Your task to perform on an android device: turn notification dots on Image 0: 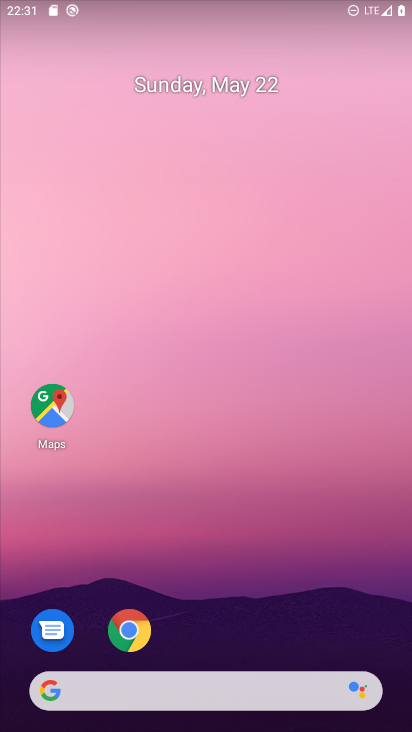
Step 0: press home button
Your task to perform on an android device: turn notification dots on Image 1: 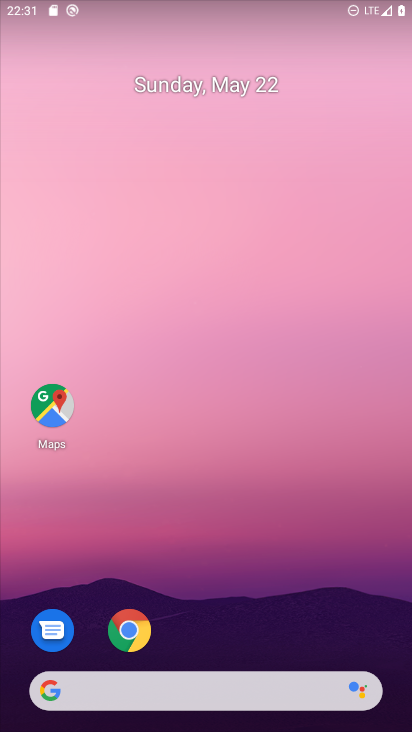
Step 1: drag from (147, 697) to (211, 120)
Your task to perform on an android device: turn notification dots on Image 2: 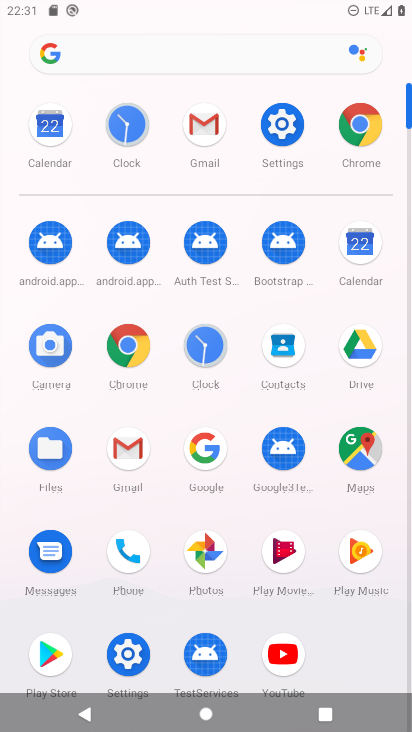
Step 2: click (280, 131)
Your task to perform on an android device: turn notification dots on Image 3: 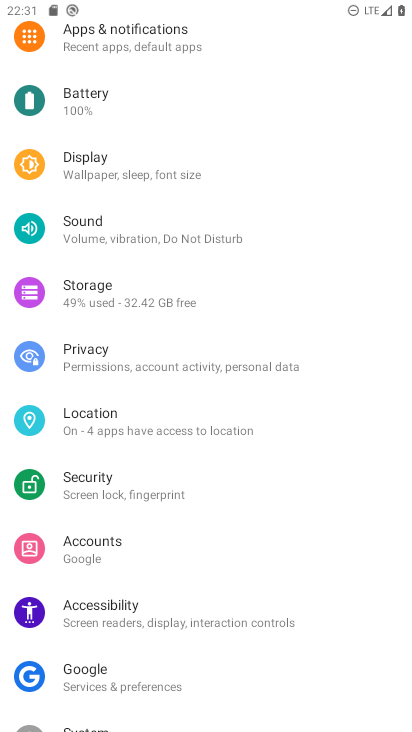
Step 3: click (154, 30)
Your task to perform on an android device: turn notification dots on Image 4: 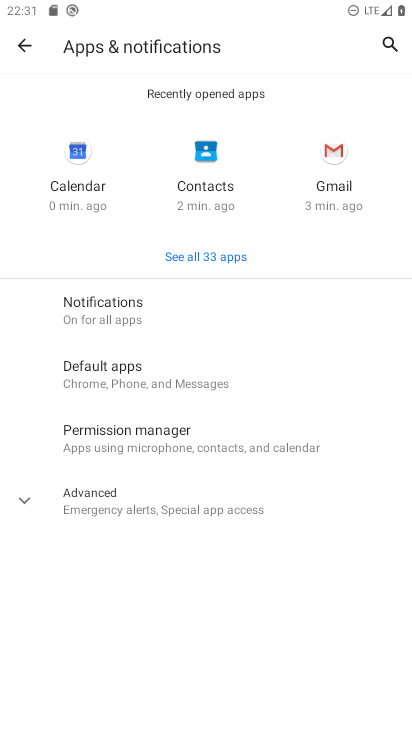
Step 4: click (131, 306)
Your task to perform on an android device: turn notification dots on Image 5: 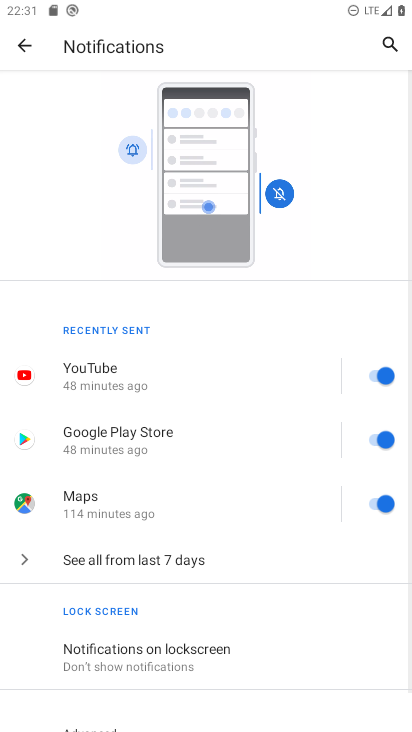
Step 5: drag from (226, 611) to (311, 143)
Your task to perform on an android device: turn notification dots on Image 6: 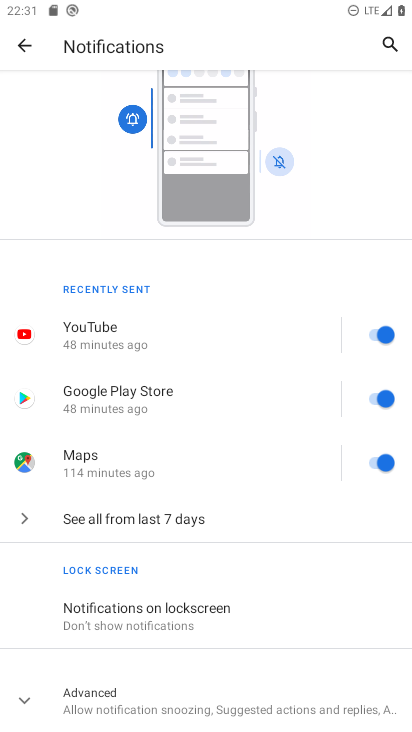
Step 6: click (172, 692)
Your task to perform on an android device: turn notification dots on Image 7: 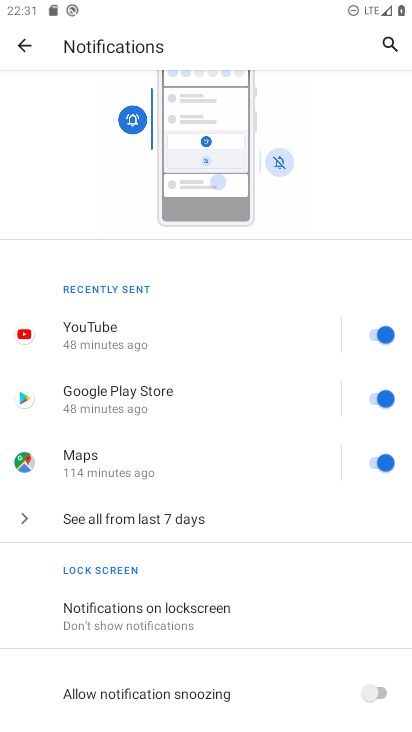
Step 7: task complete